Your task to perform on an android device: Set the phone to "Do not disturb". Image 0: 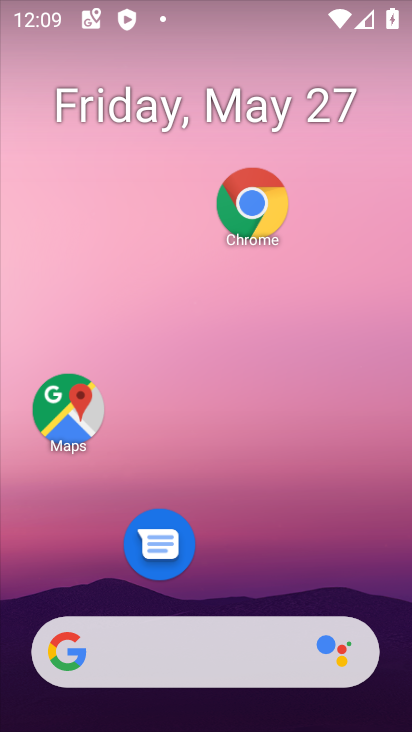
Step 0: drag from (215, 587) to (199, 157)
Your task to perform on an android device: Set the phone to "Do not disturb". Image 1: 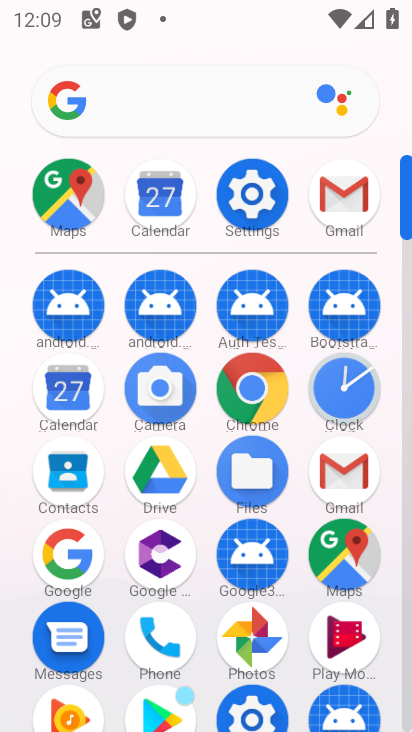
Step 1: click (259, 190)
Your task to perform on an android device: Set the phone to "Do not disturb". Image 2: 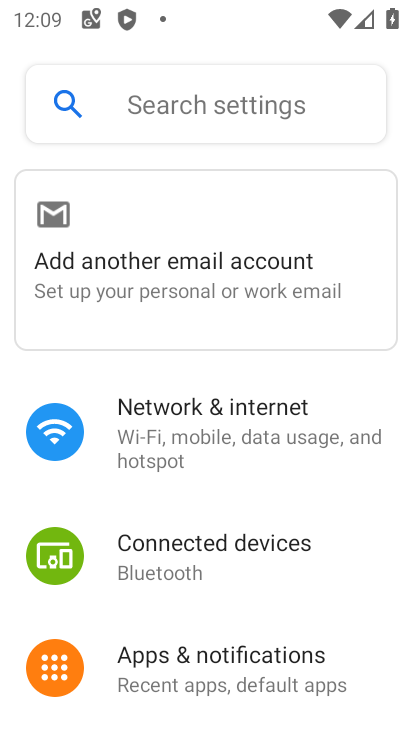
Step 2: drag from (185, 610) to (203, 494)
Your task to perform on an android device: Set the phone to "Do not disturb". Image 3: 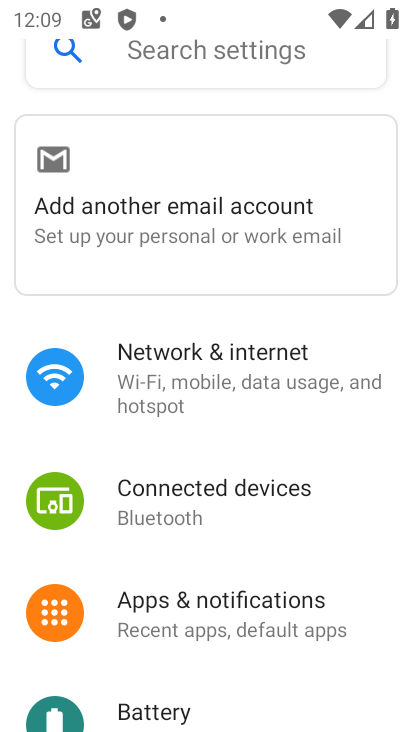
Step 3: click (197, 581)
Your task to perform on an android device: Set the phone to "Do not disturb". Image 4: 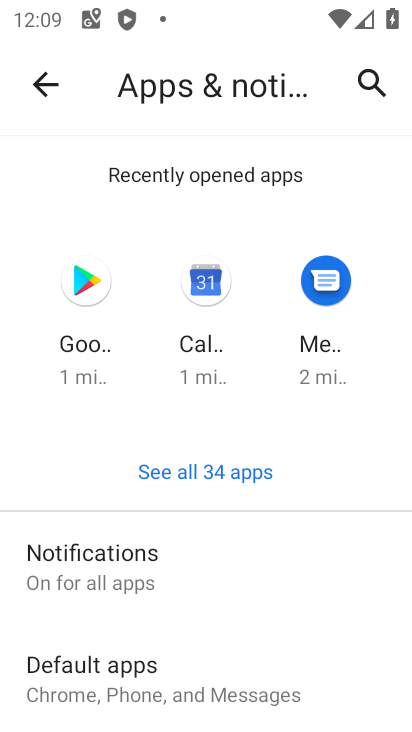
Step 4: drag from (266, 642) to (306, 276)
Your task to perform on an android device: Set the phone to "Do not disturb". Image 5: 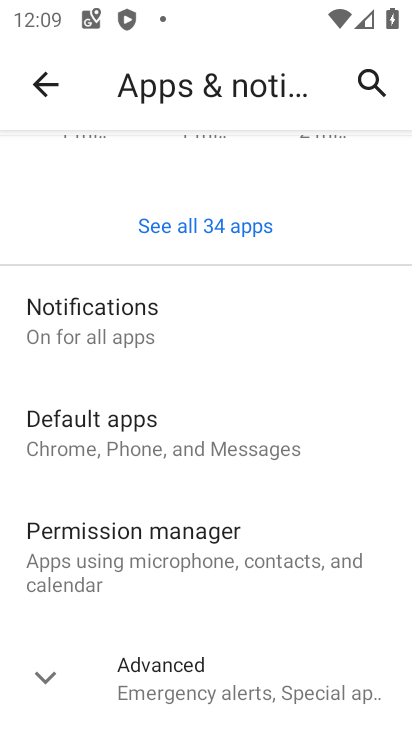
Step 5: click (151, 334)
Your task to perform on an android device: Set the phone to "Do not disturb". Image 6: 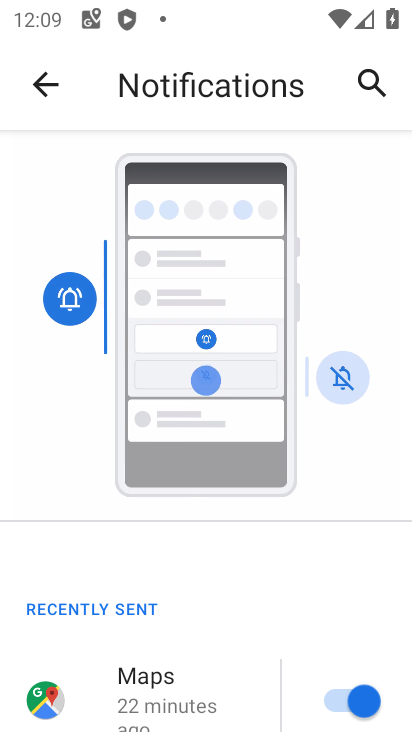
Step 6: drag from (165, 692) to (161, 234)
Your task to perform on an android device: Set the phone to "Do not disturb". Image 7: 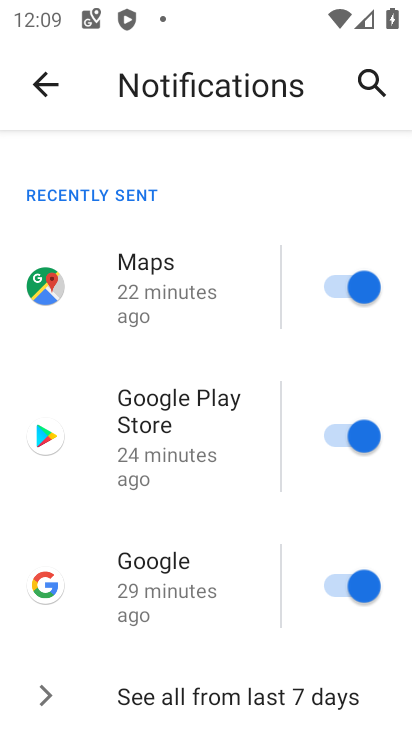
Step 7: drag from (202, 591) to (11, 314)
Your task to perform on an android device: Set the phone to "Do not disturb". Image 8: 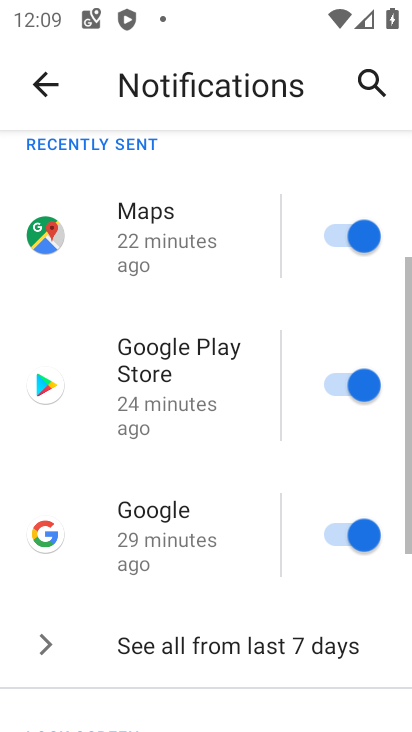
Step 8: click (187, 663)
Your task to perform on an android device: Set the phone to "Do not disturb". Image 9: 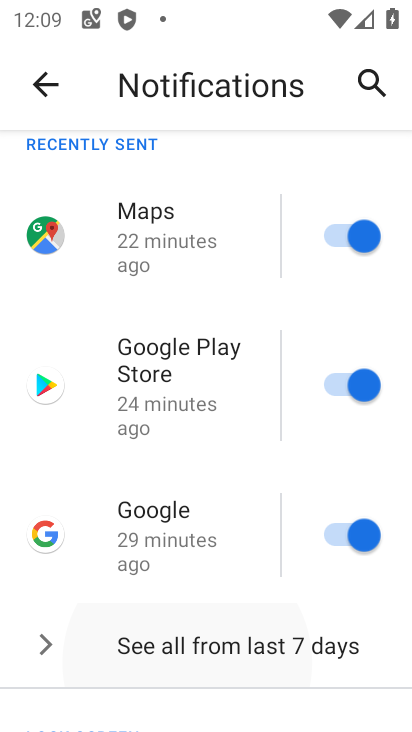
Step 9: drag from (186, 661) to (129, 2)
Your task to perform on an android device: Set the phone to "Do not disturb". Image 10: 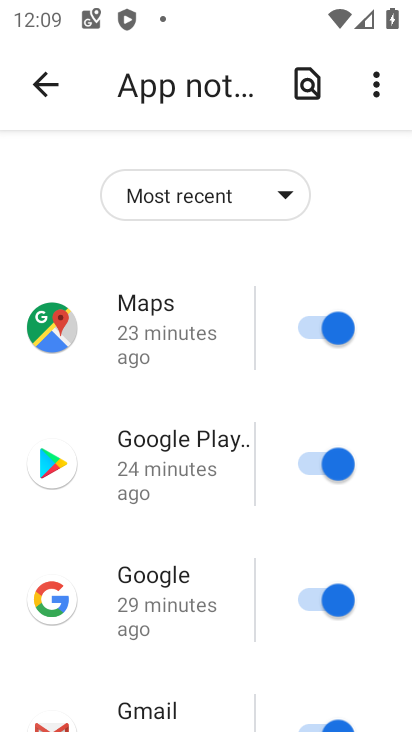
Step 10: click (38, 98)
Your task to perform on an android device: Set the phone to "Do not disturb". Image 11: 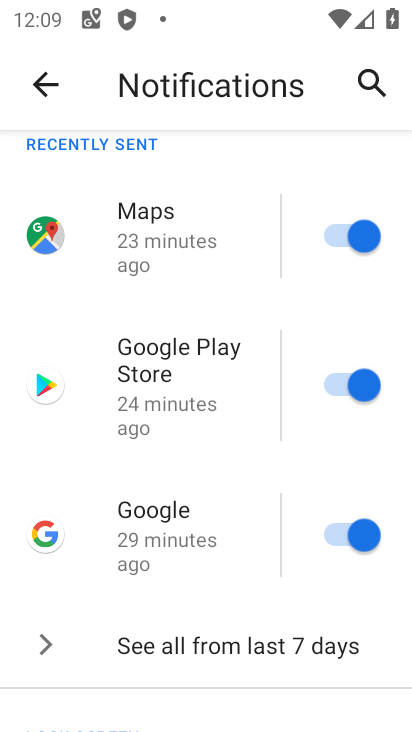
Step 11: drag from (177, 565) to (80, 17)
Your task to perform on an android device: Set the phone to "Do not disturb". Image 12: 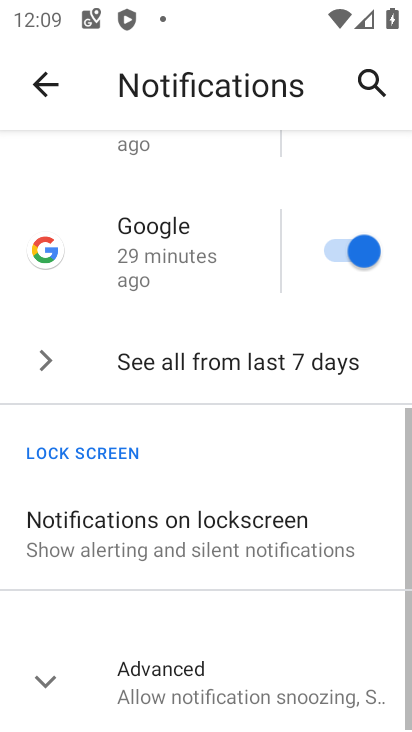
Step 12: click (140, 684)
Your task to perform on an android device: Set the phone to "Do not disturb". Image 13: 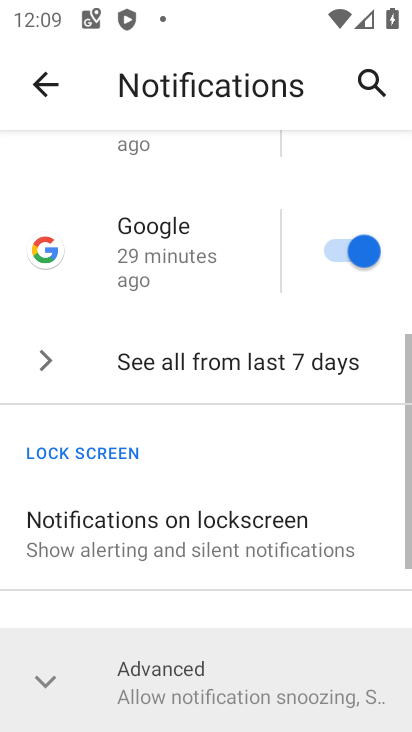
Step 13: drag from (188, 433) to (163, 1)
Your task to perform on an android device: Set the phone to "Do not disturb". Image 14: 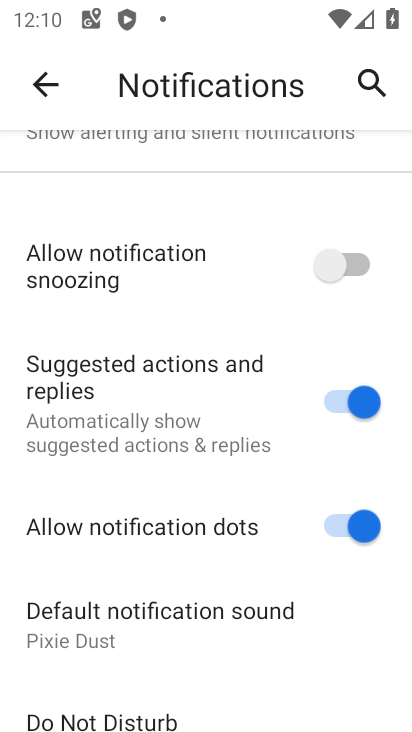
Step 14: click (84, 722)
Your task to perform on an android device: Set the phone to "Do not disturb". Image 15: 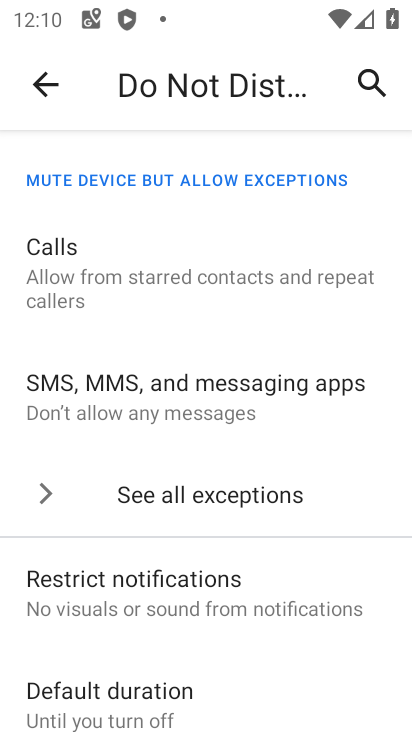
Step 15: drag from (187, 610) to (192, 148)
Your task to perform on an android device: Set the phone to "Do not disturb". Image 16: 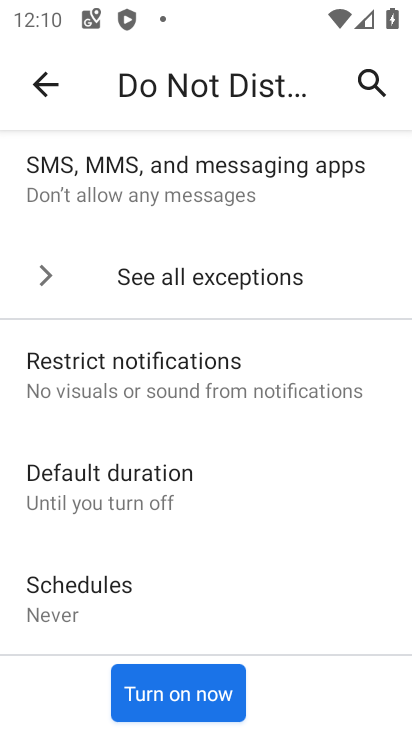
Step 16: click (196, 694)
Your task to perform on an android device: Set the phone to "Do not disturb". Image 17: 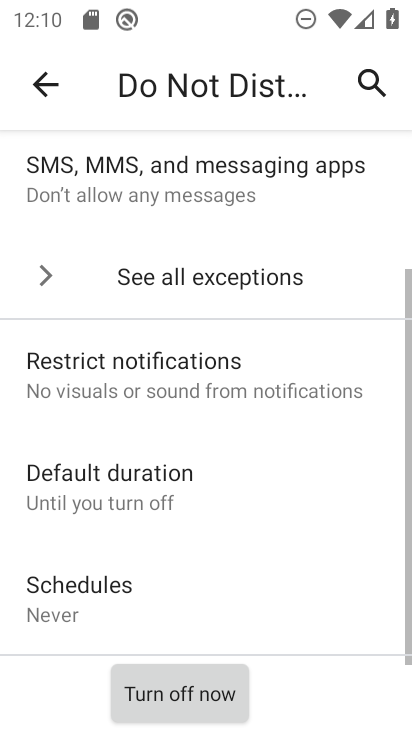
Step 17: task complete